Your task to perform on an android device: Open Maps and search for coffee Image 0: 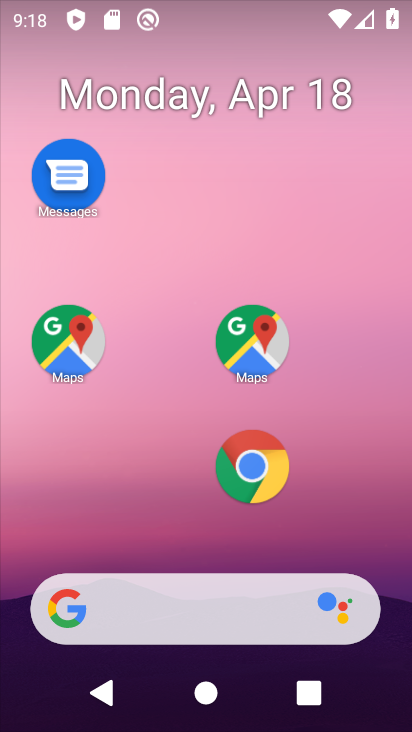
Step 0: click (248, 347)
Your task to perform on an android device: Open Maps and search for coffee Image 1: 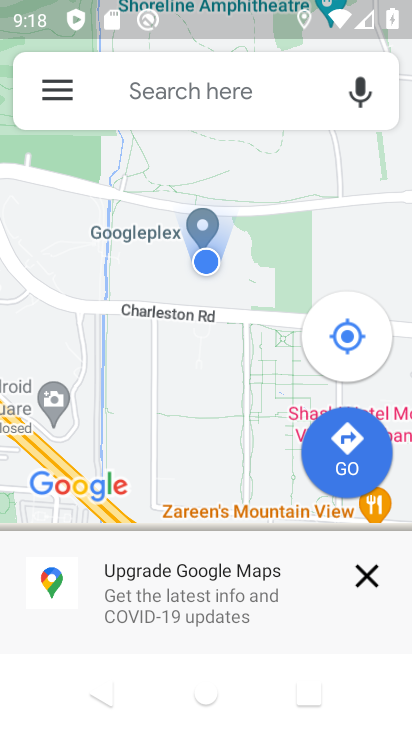
Step 1: click (151, 102)
Your task to perform on an android device: Open Maps and search for coffee Image 2: 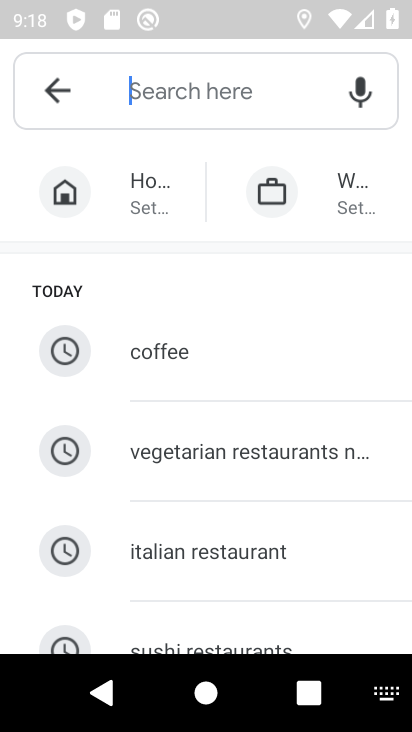
Step 2: type "coffee"
Your task to perform on an android device: Open Maps and search for coffee Image 3: 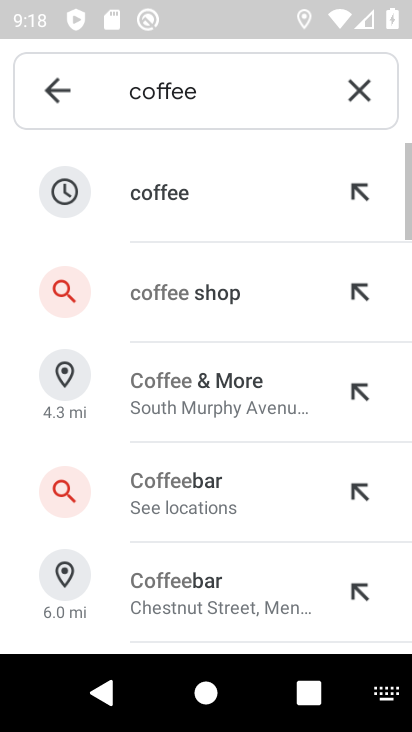
Step 3: click (218, 223)
Your task to perform on an android device: Open Maps and search for coffee Image 4: 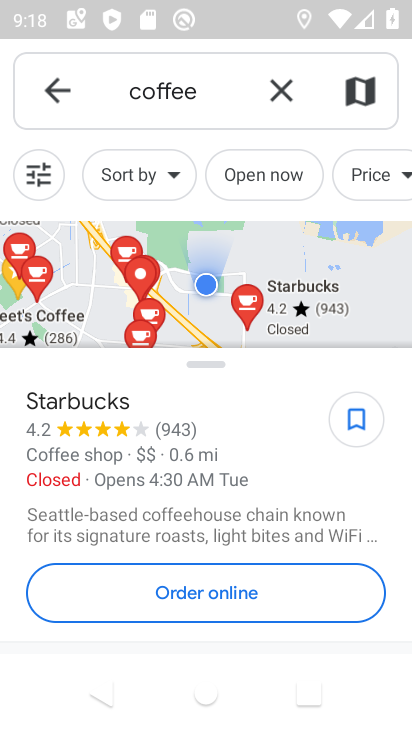
Step 4: task complete